Your task to perform on an android device: open the mobile data screen to see how much data has been used Image 0: 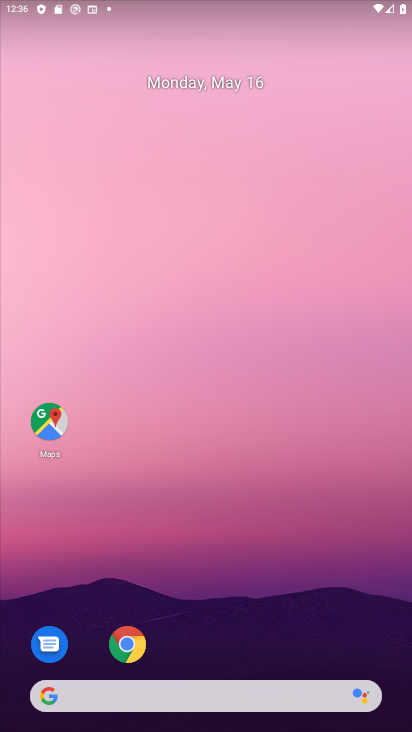
Step 0: drag from (223, 704) to (214, 335)
Your task to perform on an android device: open the mobile data screen to see how much data has been used Image 1: 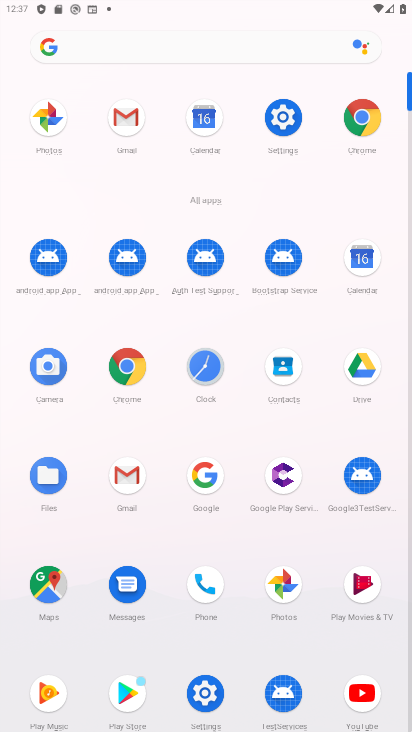
Step 1: click (277, 127)
Your task to perform on an android device: open the mobile data screen to see how much data has been used Image 2: 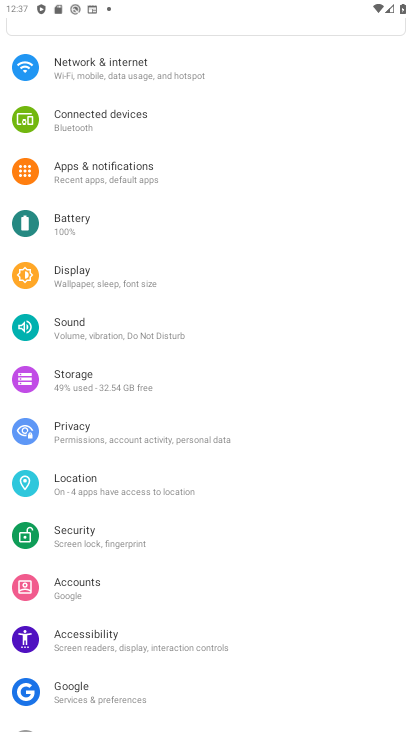
Step 2: click (75, 66)
Your task to perform on an android device: open the mobile data screen to see how much data has been used Image 3: 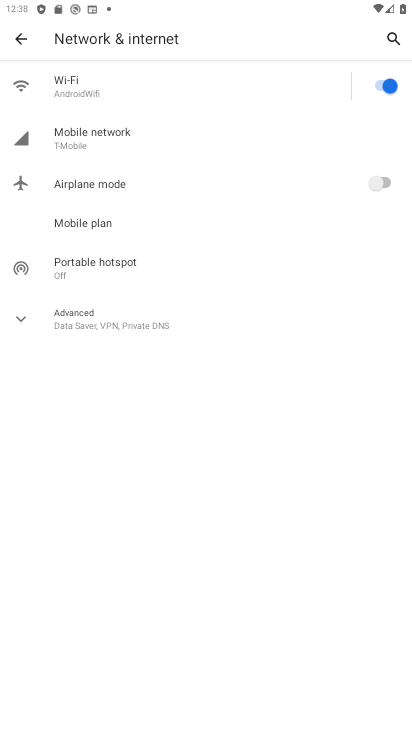
Step 3: click (101, 131)
Your task to perform on an android device: open the mobile data screen to see how much data has been used Image 4: 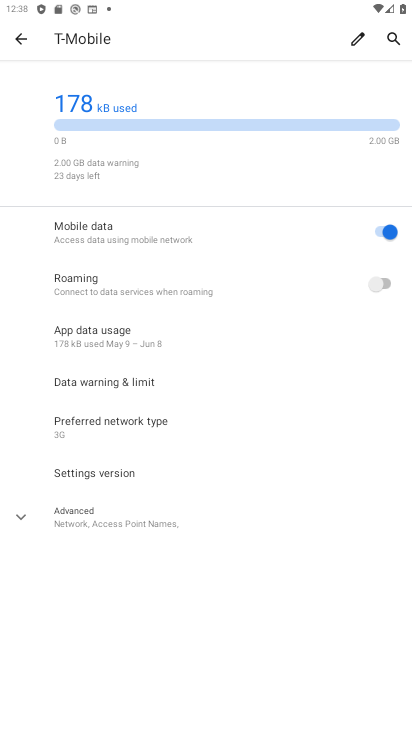
Step 4: task complete